Your task to perform on an android device: turn on improve location accuracy Image 0: 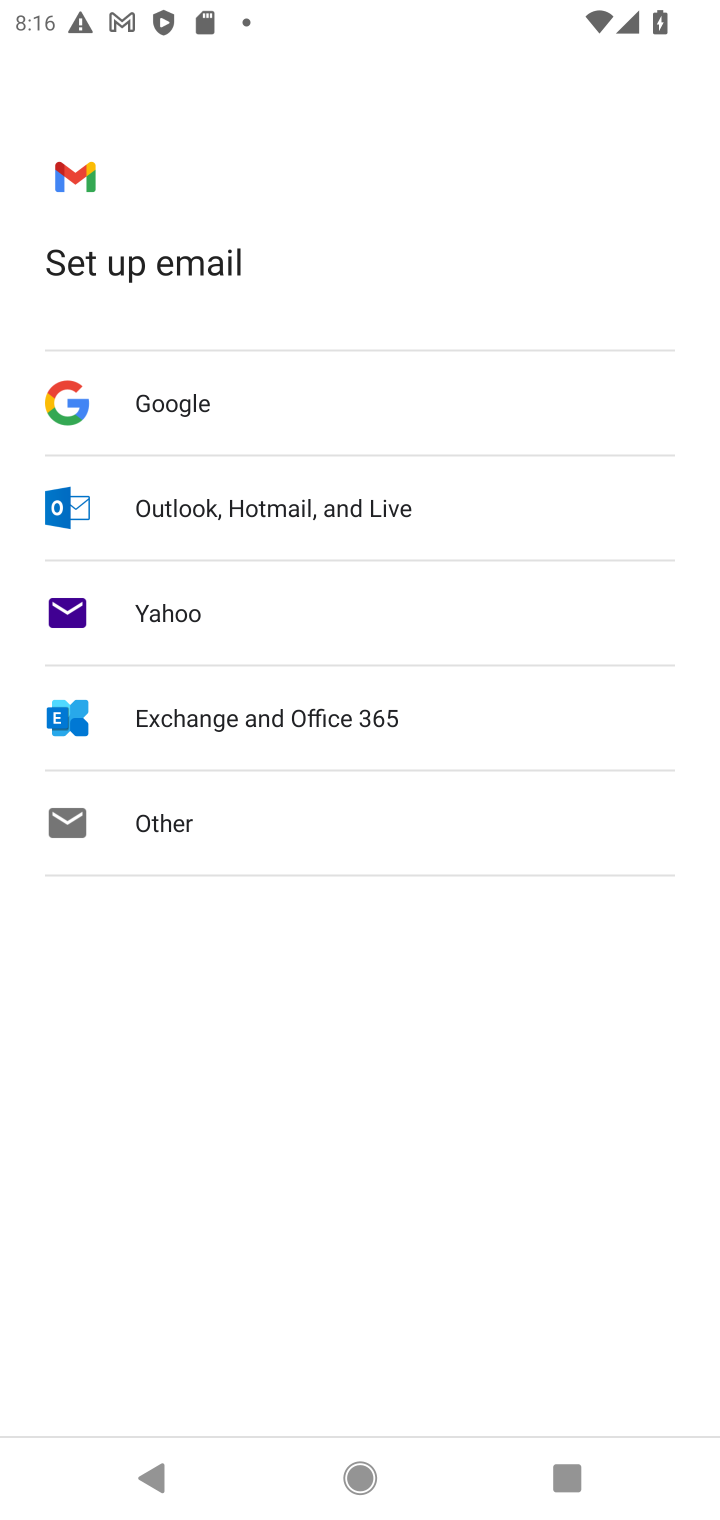
Step 0: press home button
Your task to perform on an android device: turn on improve location accuracy Image 1: 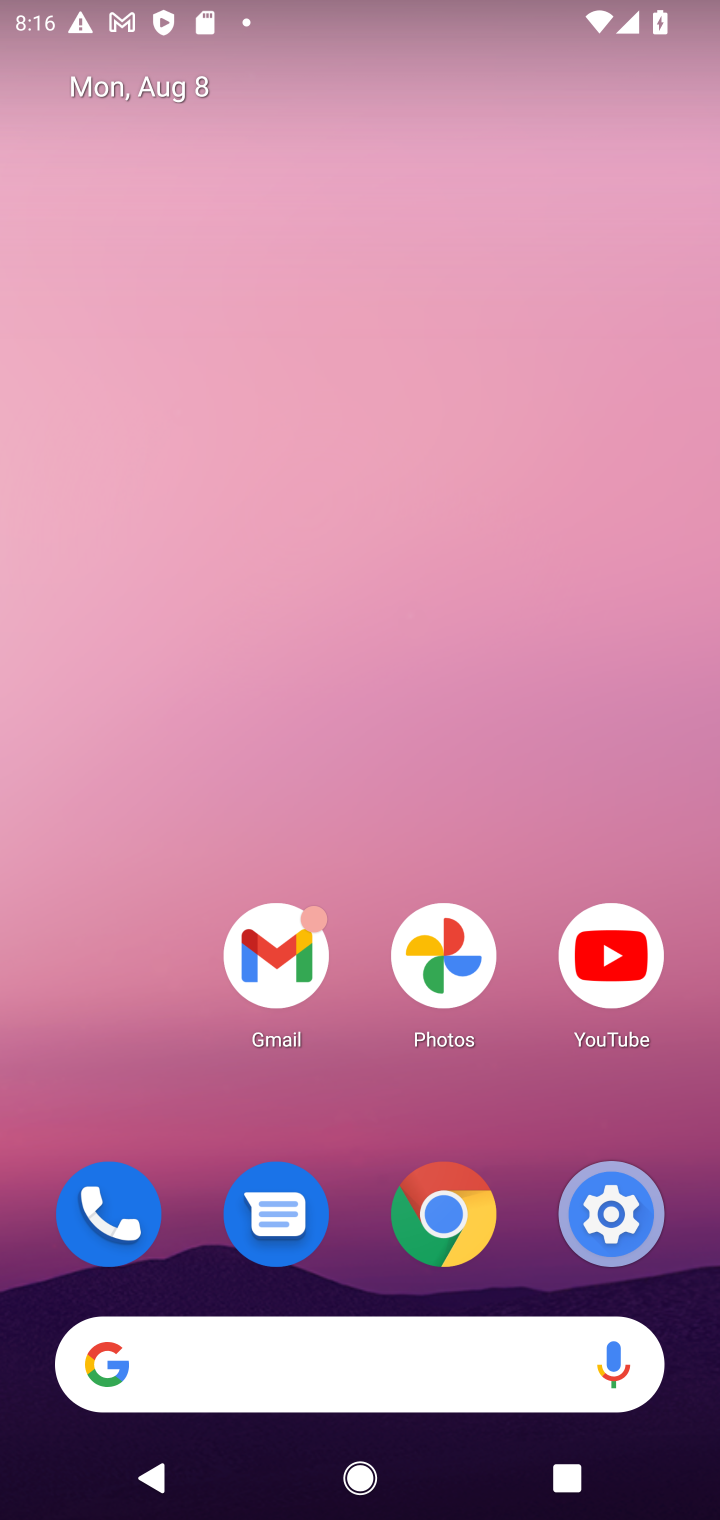
Step 1: click (606, 1210)
Your task to perform on an android device: turn on improve location accuracy Image 2: 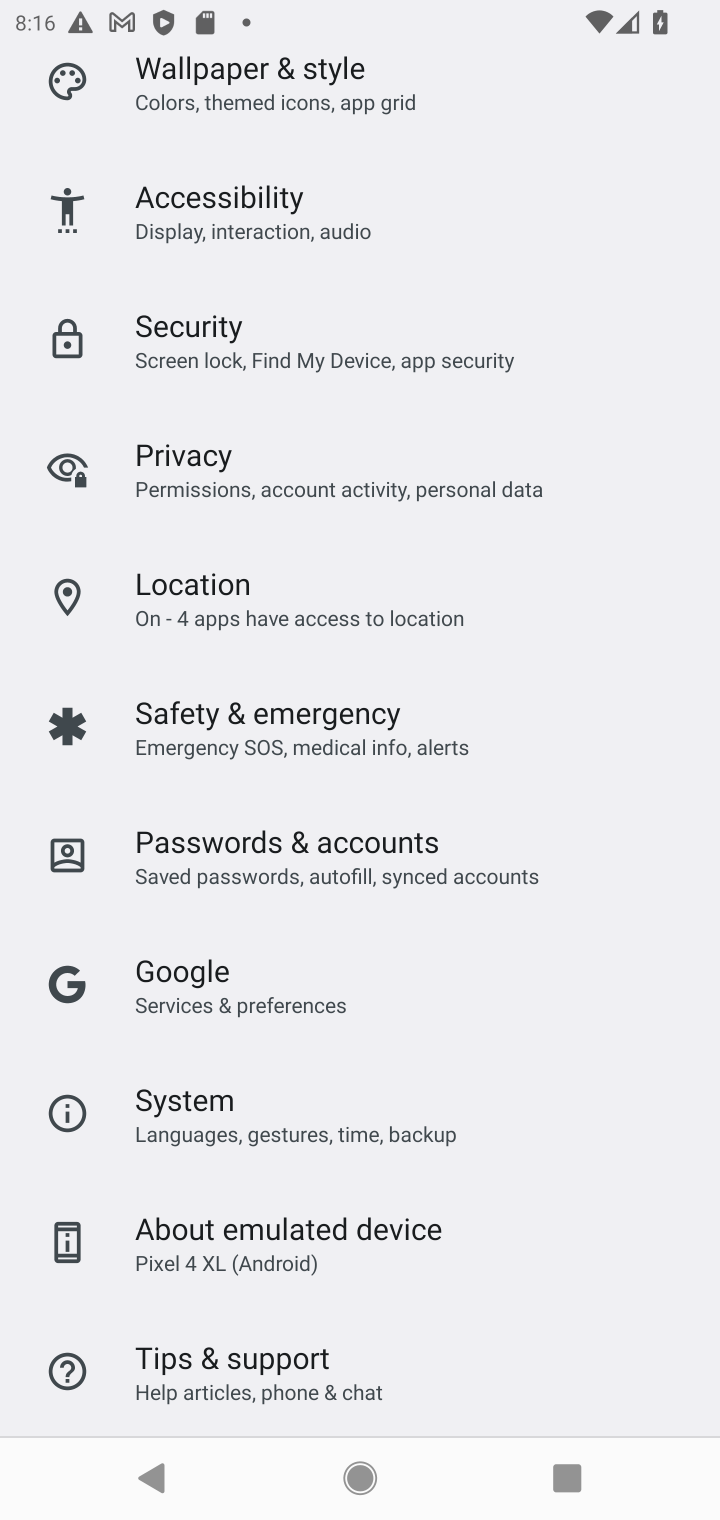
Step 2: click (287, 590)
Your task to perform on an android device: turn on improve location accuracy Image 3: 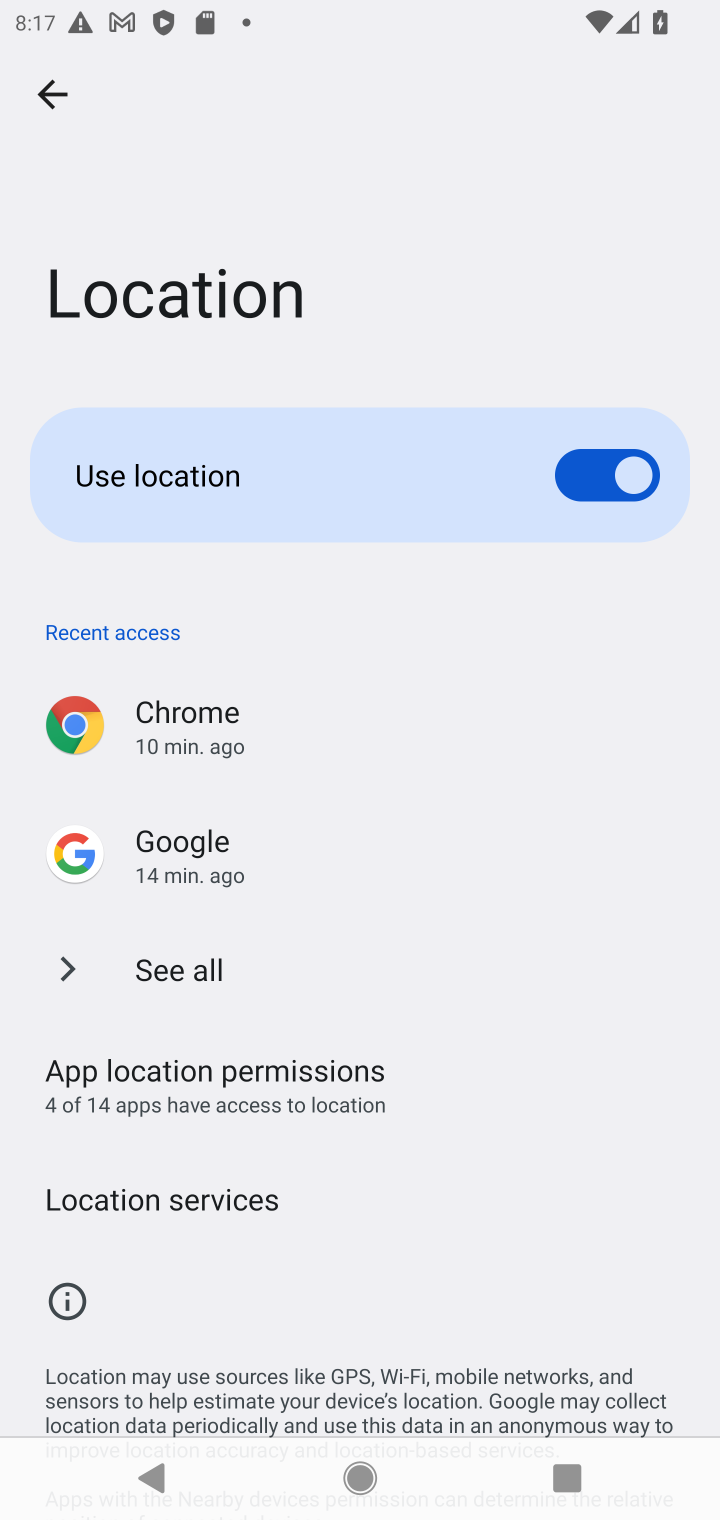
Step 3: click (276, 1191)
Your task to perform on an android device: turn on improve location accuracy Image 4: 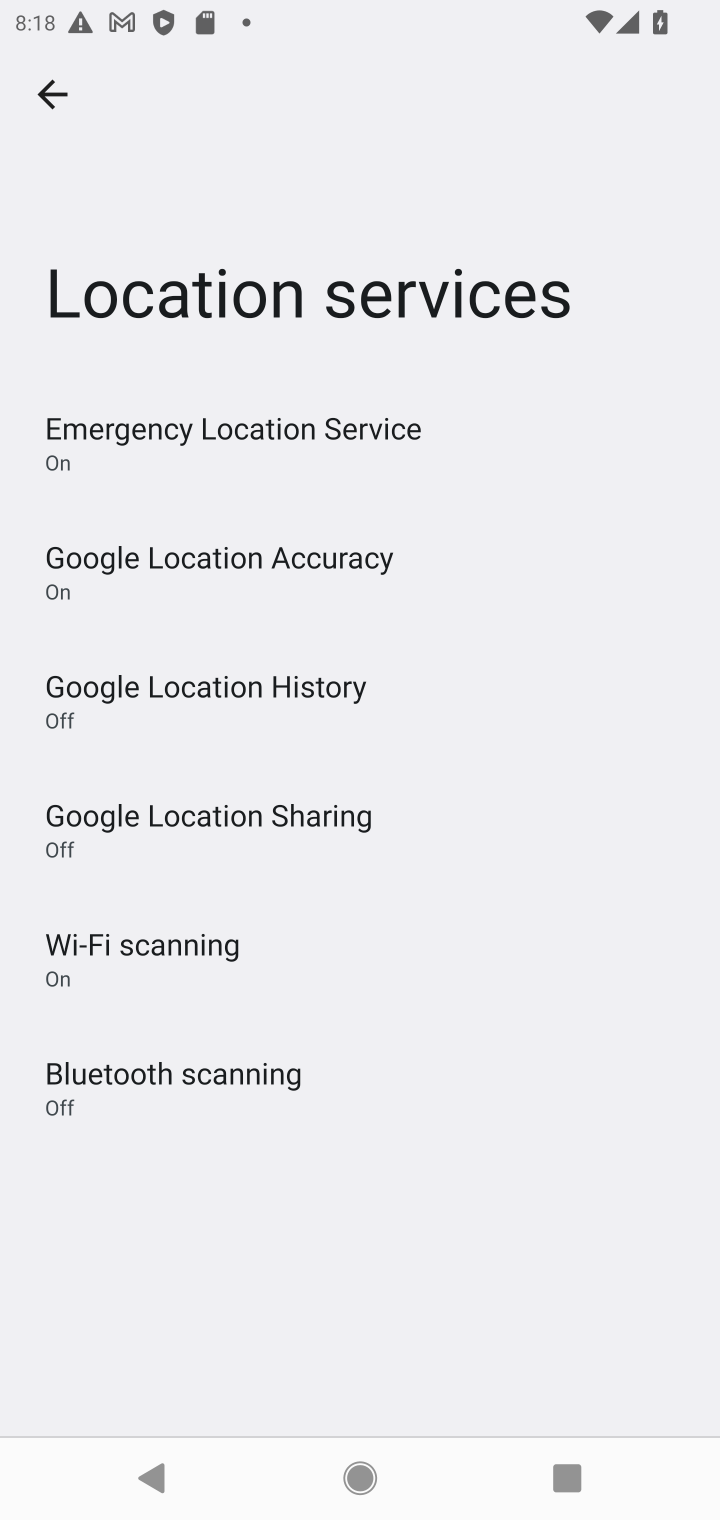
Step 4: task complete